Your task to perform on an android device: Is it going to rain today? Image 0: 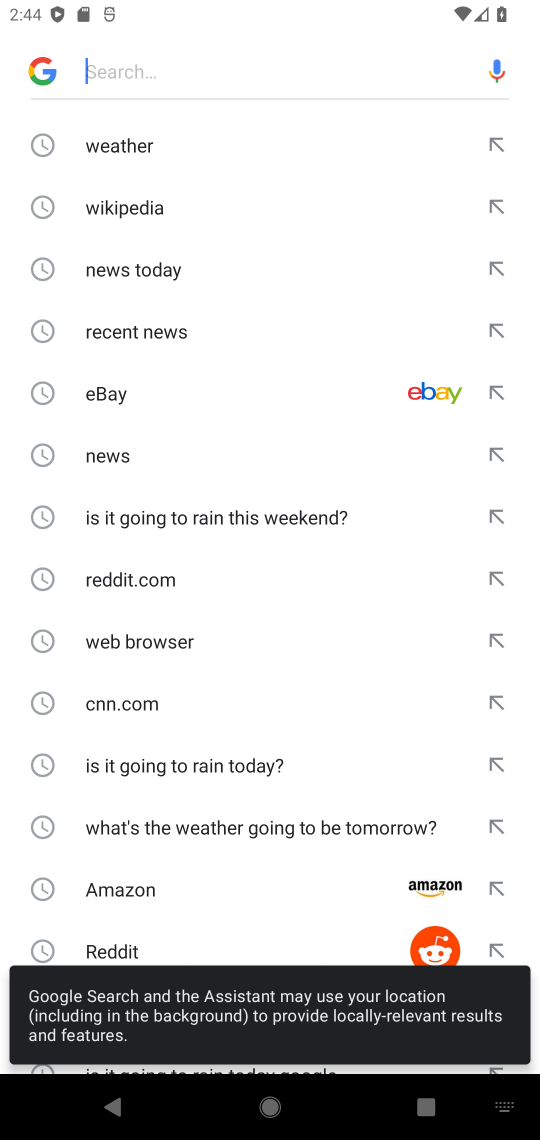
Step 0: click (140, 142)
Your task to perform on an android device: Is it going to rain today? Image 1: 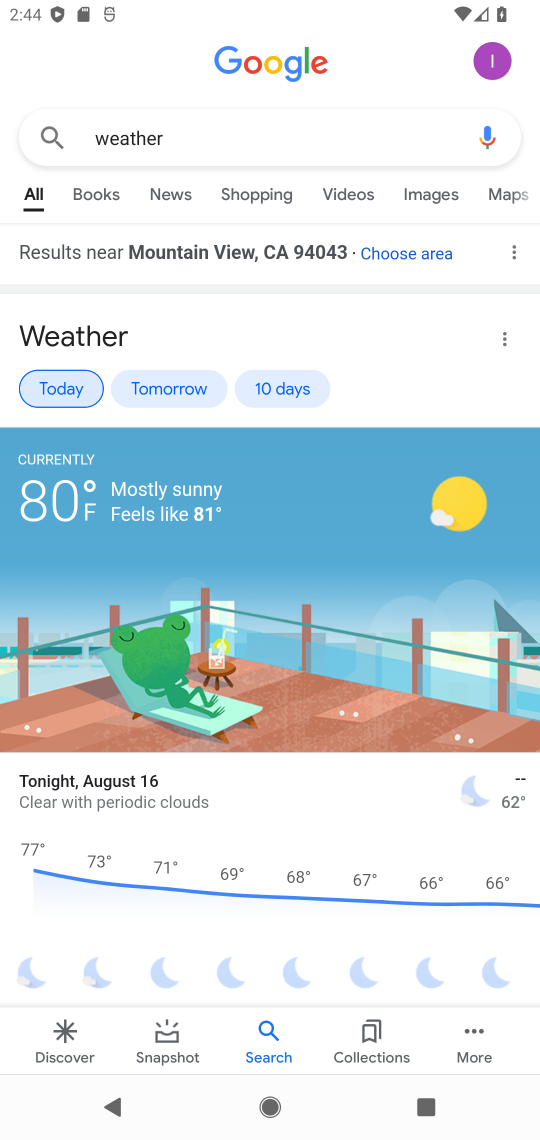
Step 1: task complete